Your task to perform on an android device: What's the weather? Image 0: 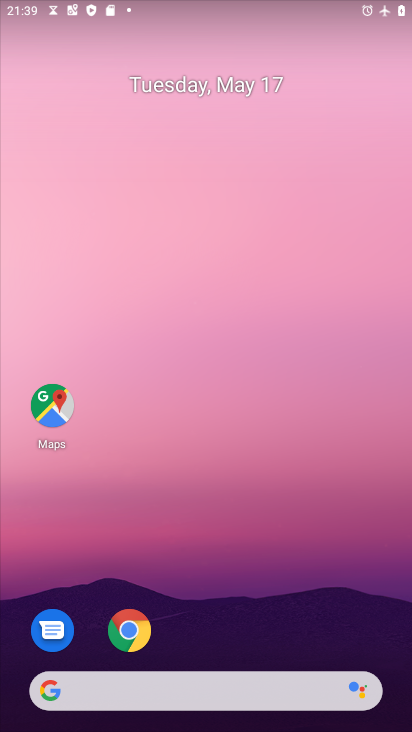
Step 0: click (140, 630)
Your task to perform on an android device: What's the weather? Image 1: 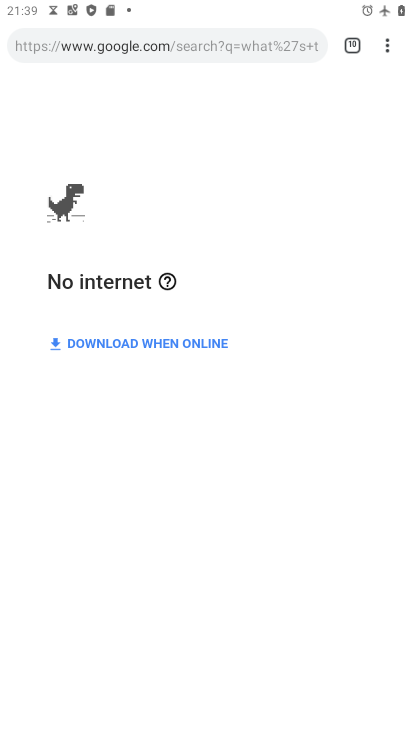
Step 1: click (358, 42)
Your task to perform on an android device: What's the weather? Image 2: 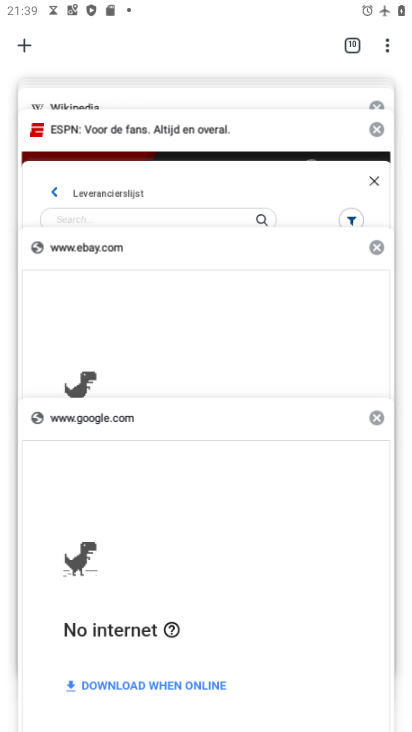
Step 2: click (19, 55)
Your task to perform on an android device: What's the weather? Image 3: 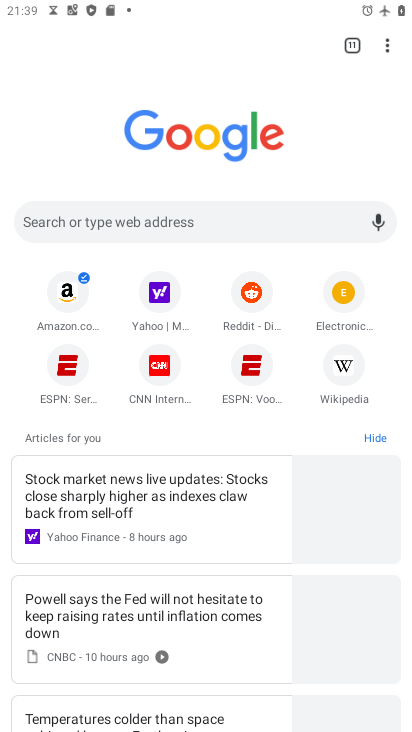
Step 3: click (128, 225)
Your task to perform on an android device: What's the weather? Image 4: 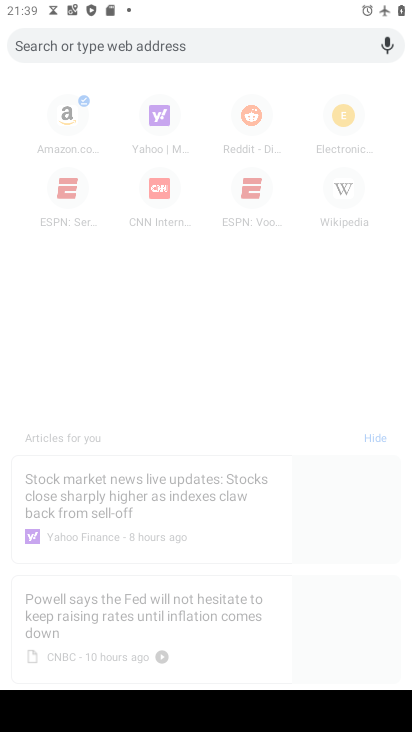
Step 4: type "what's the weather"
Your task to perform on an android device: What's the weather? Image 5: 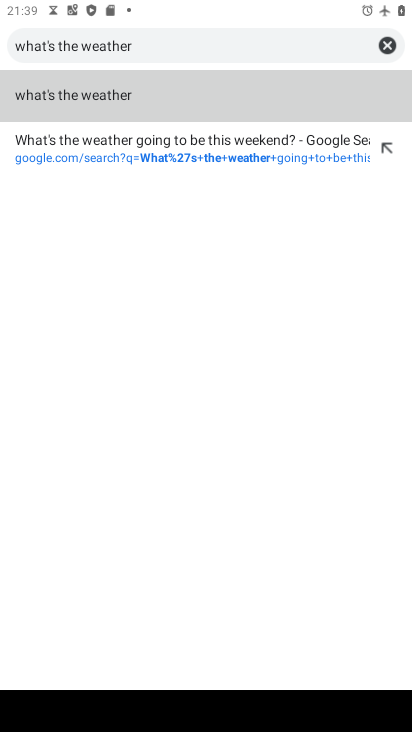
Step 5: click (173, 89)
Your task to perform on an android device: What's the weather? Image 6: 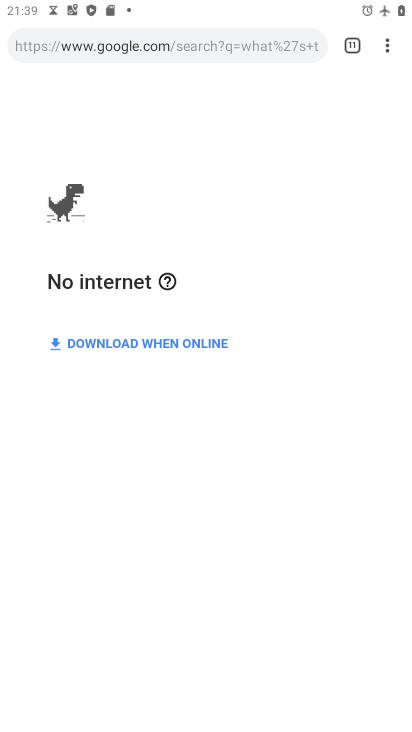
Step 6: task complete